Your task to perform on an android device: Go to Maps Image 0: 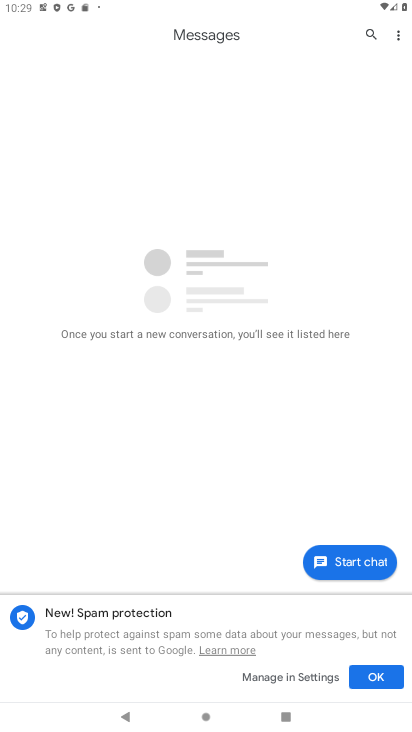
Step 0: press home button
Your task to perform on an android device: Go to Maps Image 1: 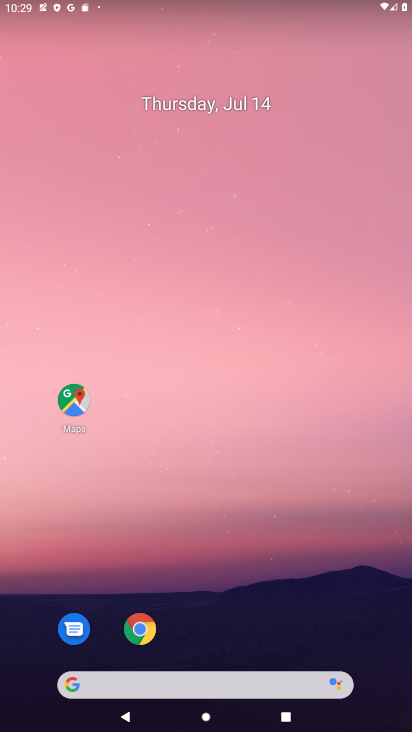
Step 1: click (71, 400)
Your task to perform on an android device: Go to Maps Image 2: 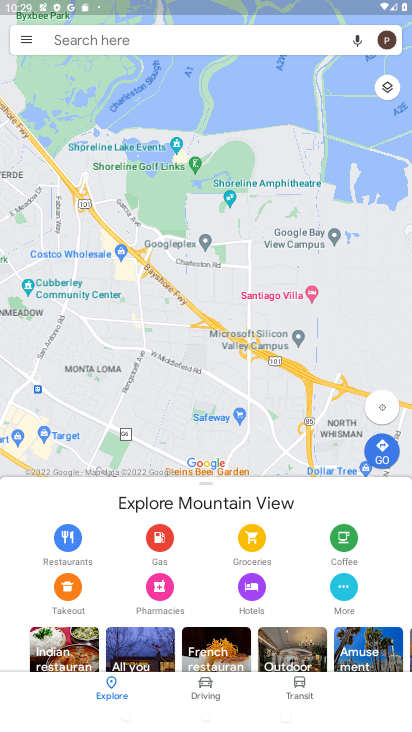
Step 2: task complete